Your task to perform on an android device: Go to network settings Image 0: 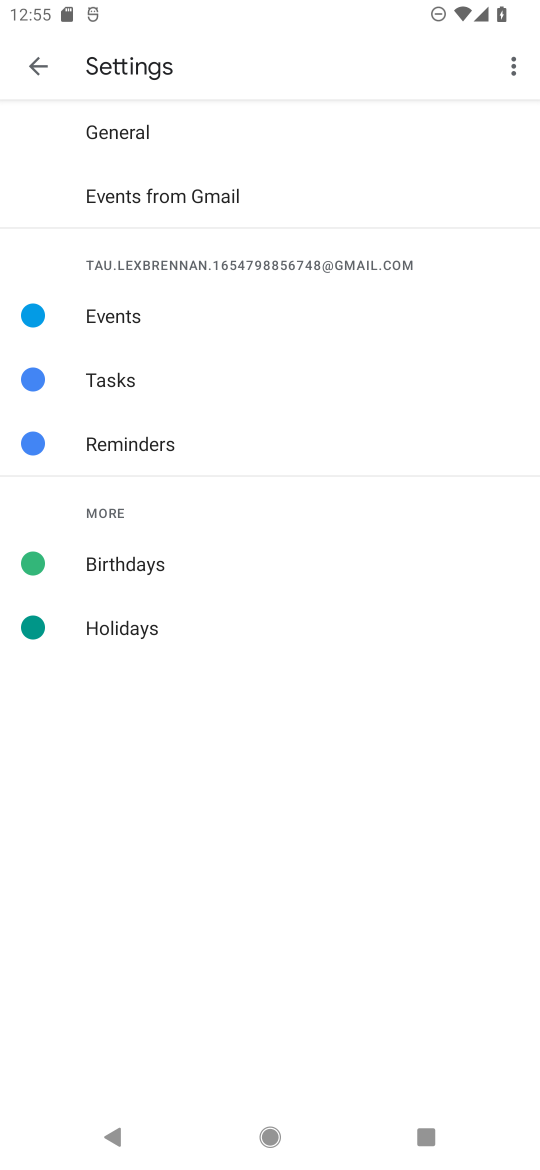
Step 0: press home button
Your task to perform on an android device: Go to network settings Image 1: 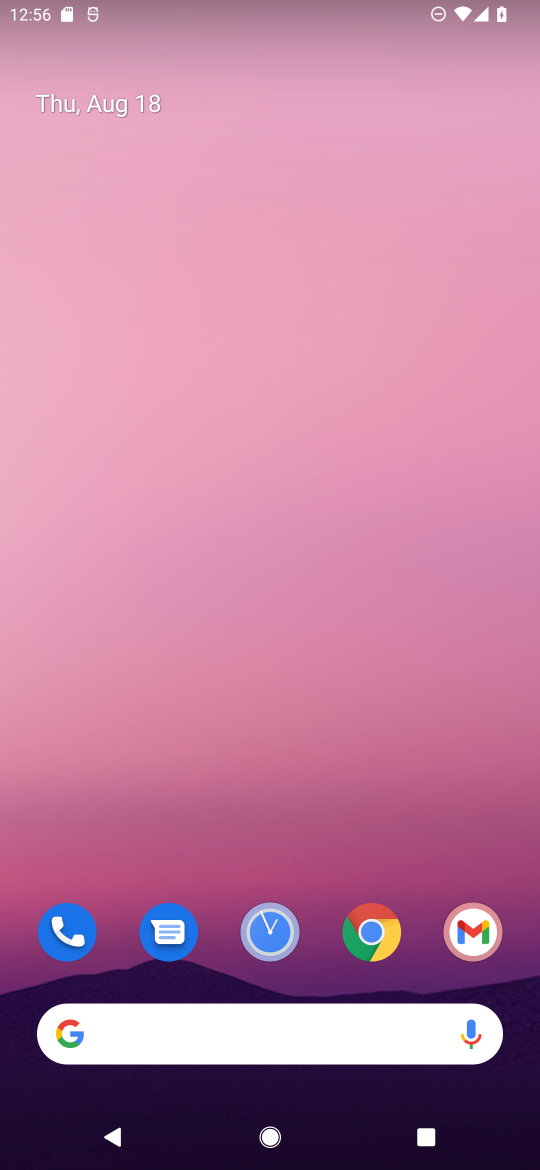
Step 1: drag from (290, 791) to (297, 39)
Your task to perform on an android device: Go to network settings Image 2: 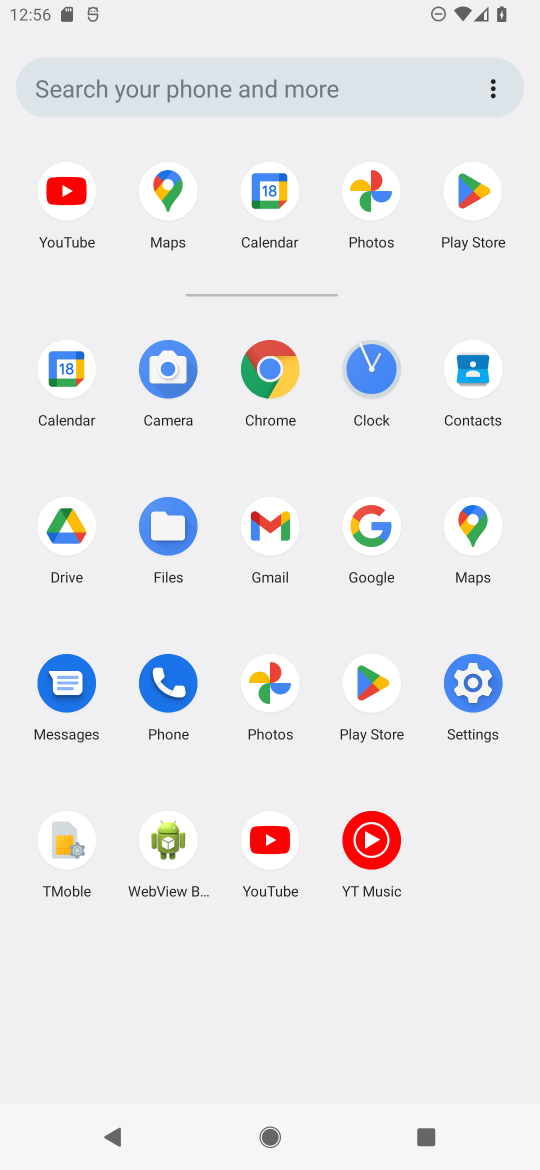
Step 2: click (470, 680)
Your task to perform on an android device: Go to network settings Image 3: 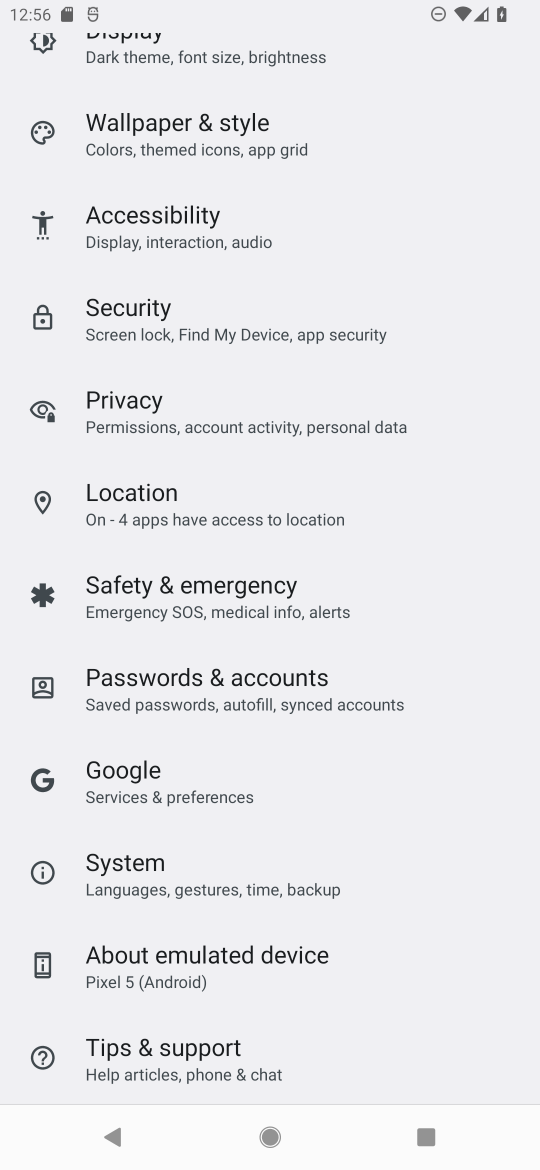
Step 3: drag from (301, 232) to (281, 522)
Your task to perform on an android device: Go to network settings Image 4: 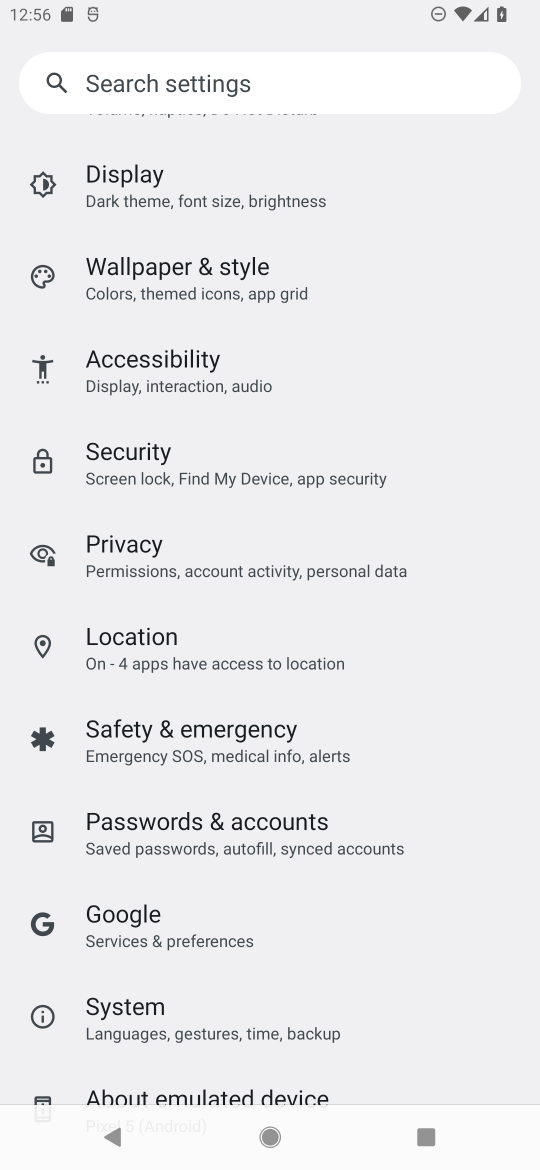
Step 4: drag from (357, 249) to (357, 764)
Your task to perform on an android device: Go to network settings Image 5: 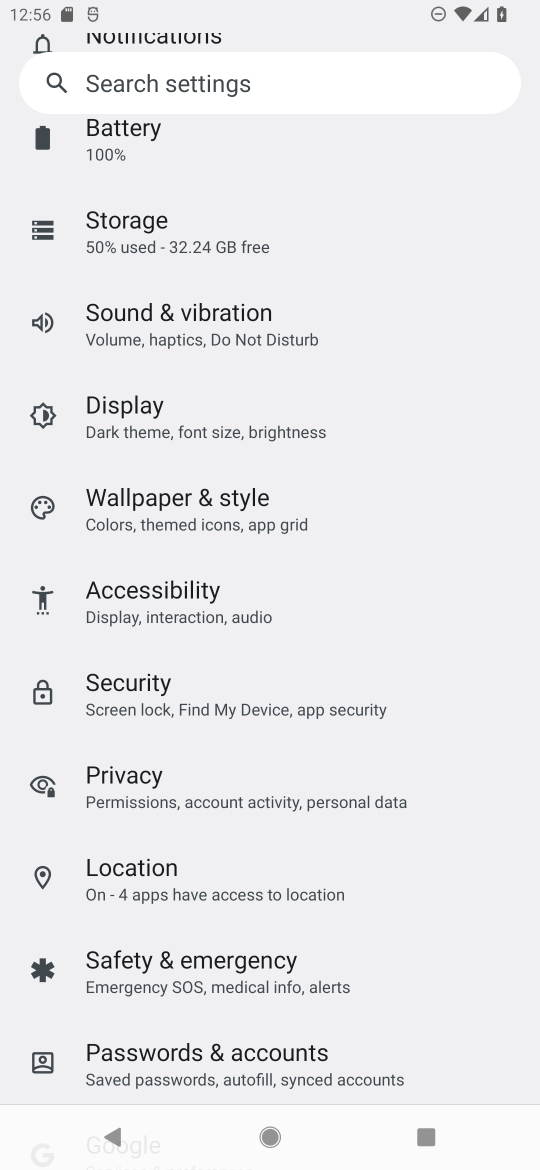
Step 5: drag from (280, 176) to (405, 1004)
Your task to perform on an android device: Go to network settings Image 6: 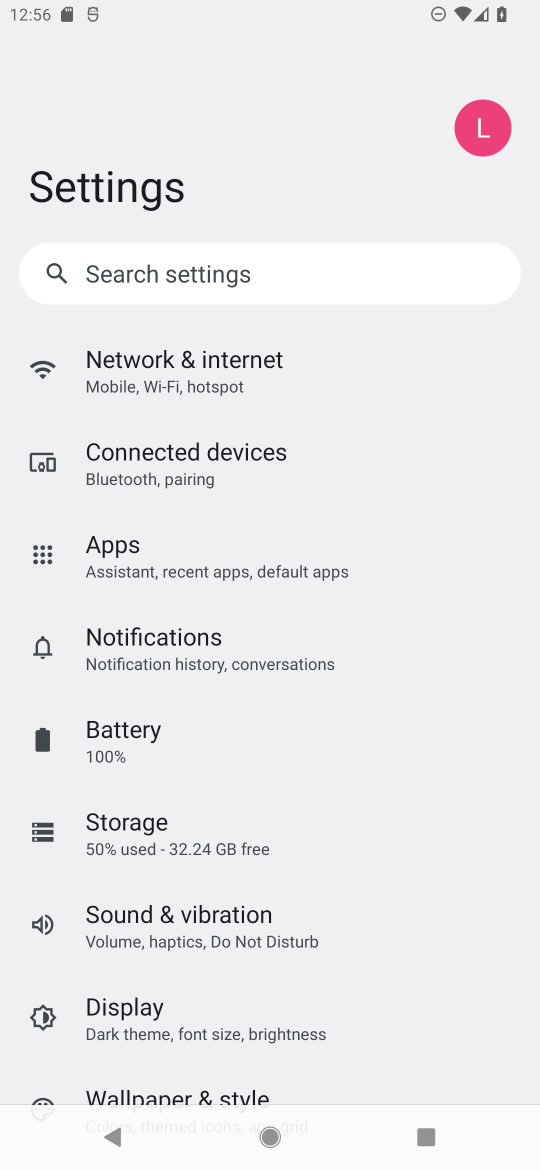
Step 6: click (179, 357)
Your task to perform on an android device: Go to network settings Image 7: 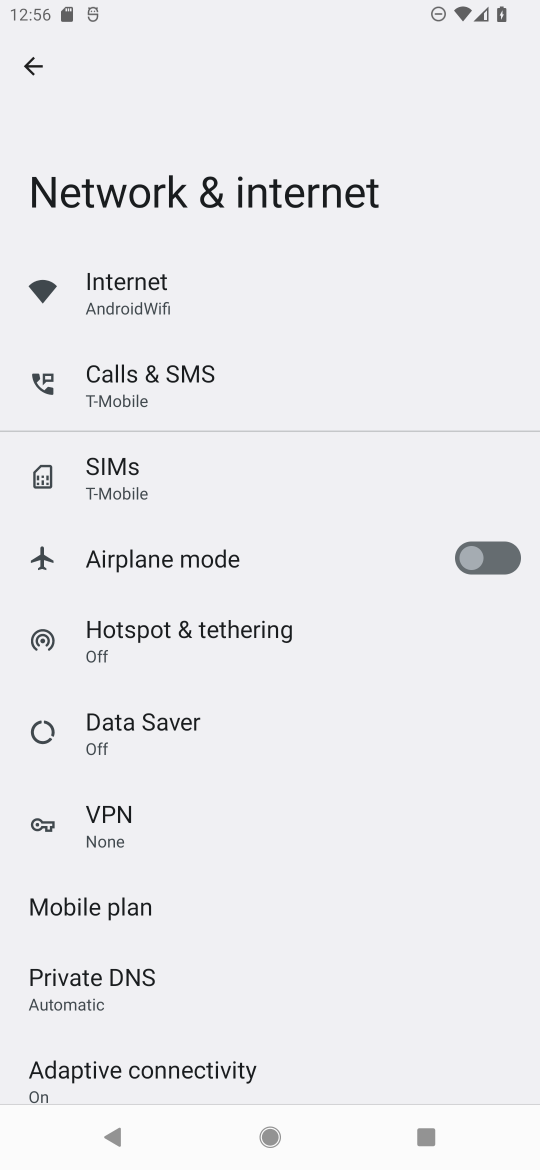
Step 7: task complete